Your task to perform on an android device: toggle javascript in the chrome app Image 0: 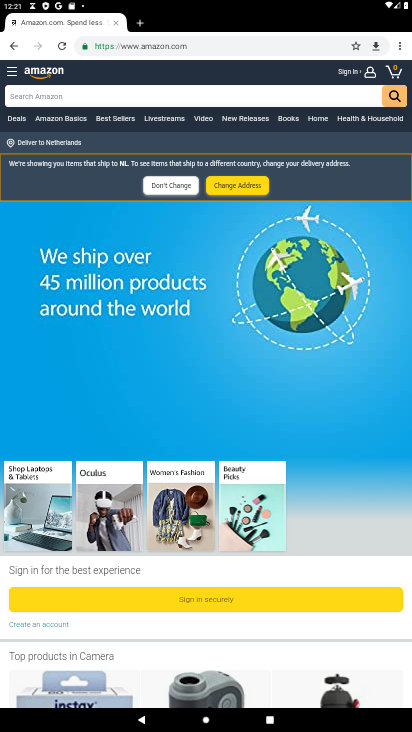
Step 0: press home button
Your task to perform on an android device: toggle javascript in the chrome app Image 1: 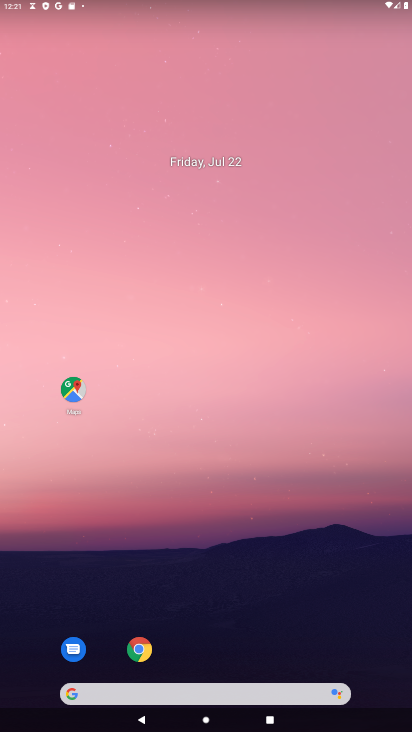
Step 1: click (141, 651)
Your task to perform on an android device: toggle javascript in the chrome app Image 2: 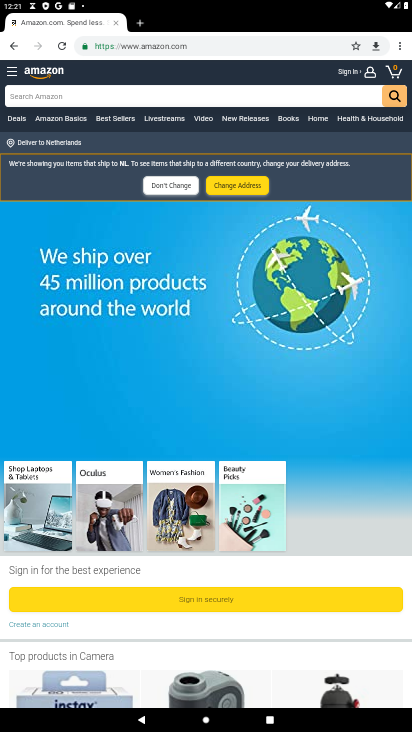
Step 2: click (408, 48)
Your task to perform on an android device: toggle javascript in the chrome app Image 3: 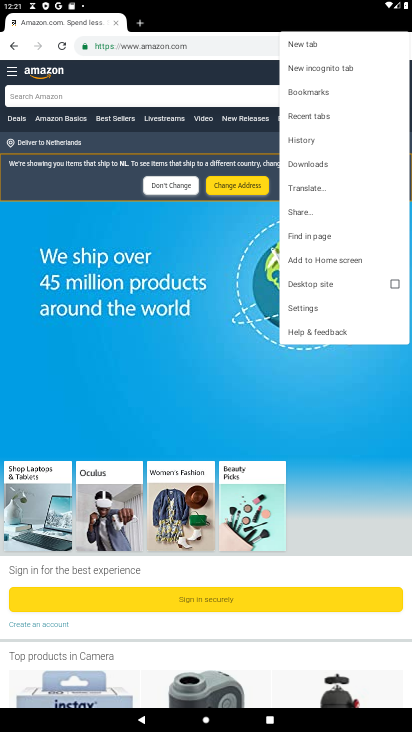
Step 3: click (333, 305)
Your task to perform on an android device: toggle javascript in the chrome app Image 4: 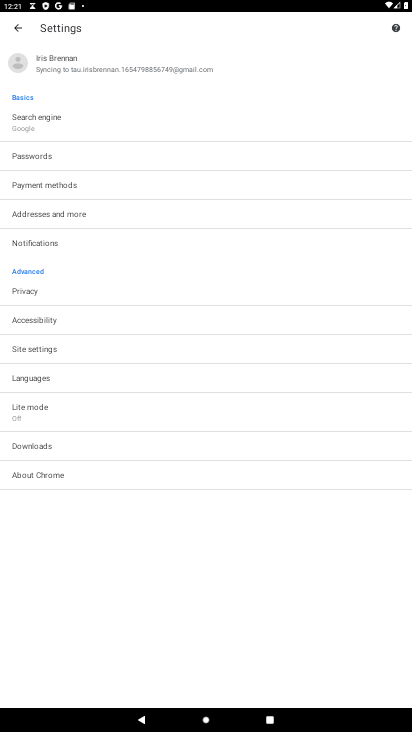
Step 4: click (44, 353)
Your task to perform on an android device: toggle javascript in the chrome app Image 5: 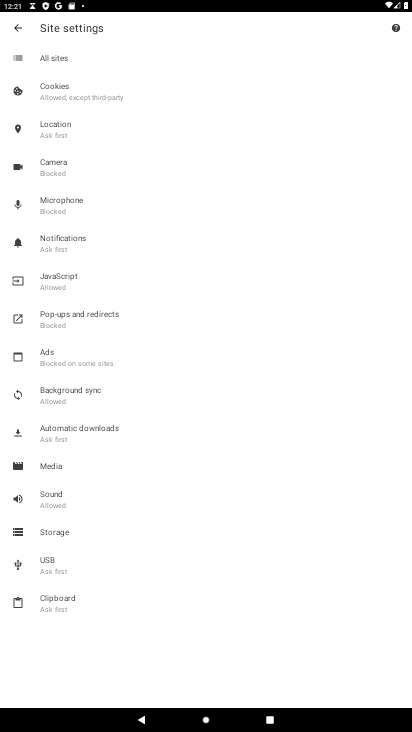
Step 5: click (90, 285)
Your task to perform on an android device: toggle javascript in the chrome app Image 6: 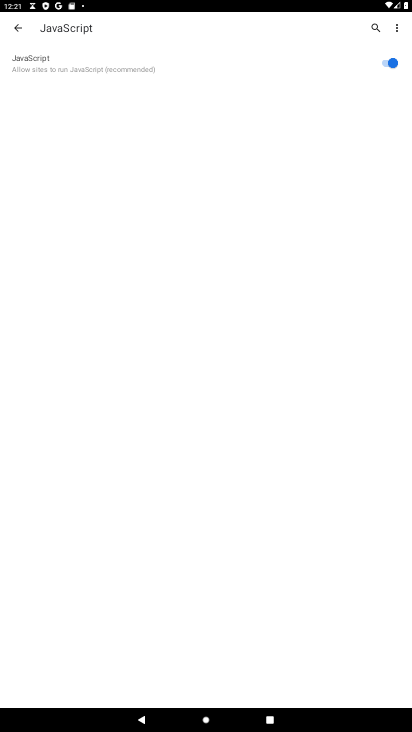
Step 6: click (389, 58)
Your task to perform on an android device: toggle javascript in the chrome app Image 7: 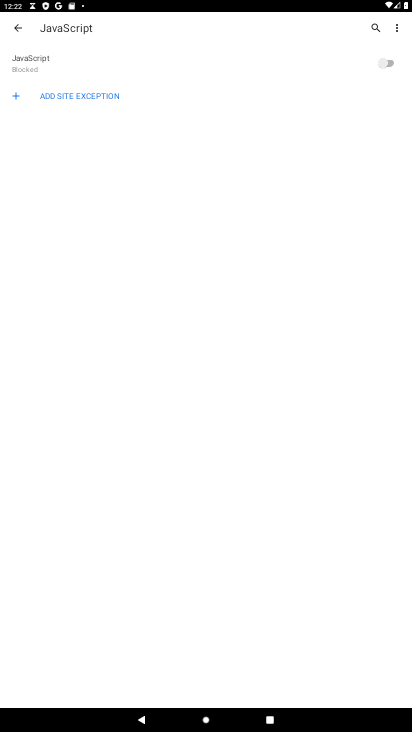
Step 7: task complete